Your task to perform on an android device: read, delete, or share a saved page in the chrome app Image 0: 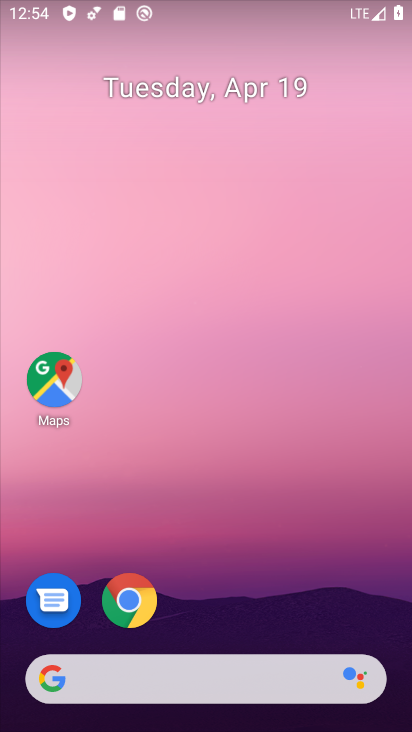
Step 0: drag from (229, 639) to (198, 58)
Your task to perform on an android device: read, delete, or share a saved page in the chrome app Image 1: 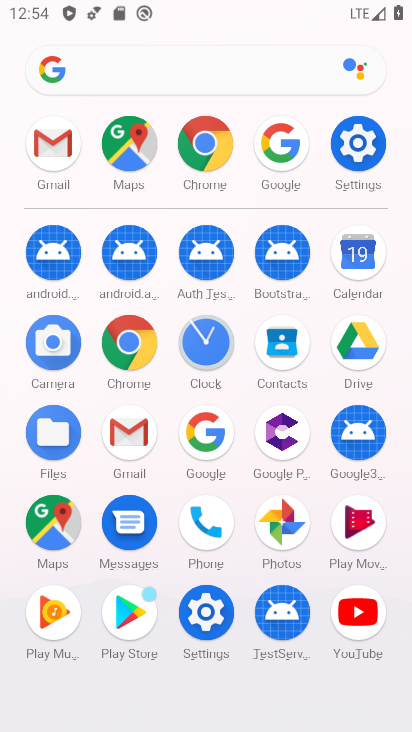
Step 1: click (139, 356)
Your task to perform on an android device: read, delete, or share a saved page in the chrome app Image 2: 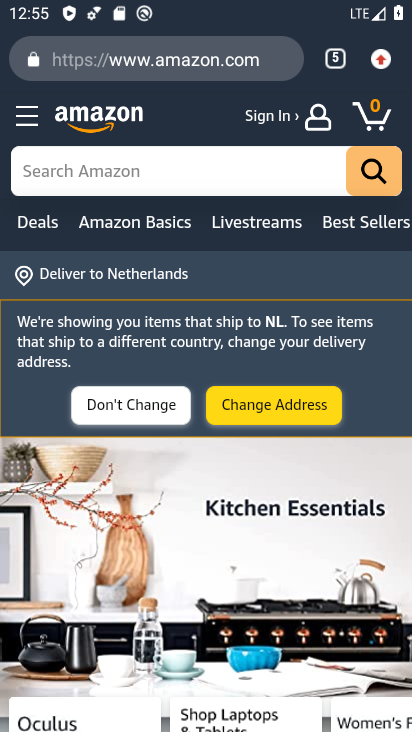
Step 2: click (381, 60)
Your task to perform on an android device: read, delete, or share a saved page in the chrome app Image 3: 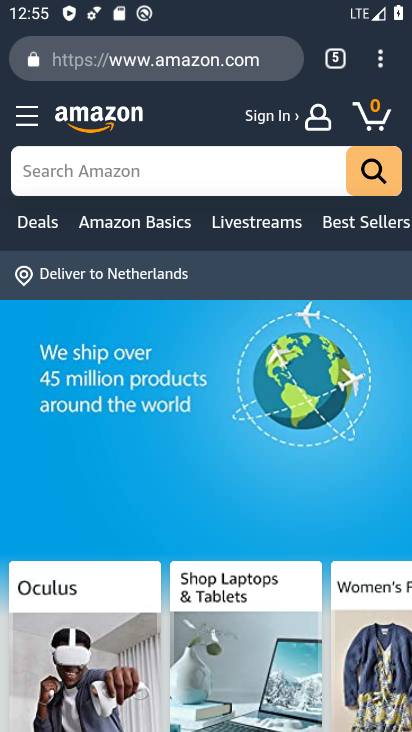
Step 3: click (378, 58)
Your task to perform on an android device: read, delete, or share a saved page in the chrome app Image 4: 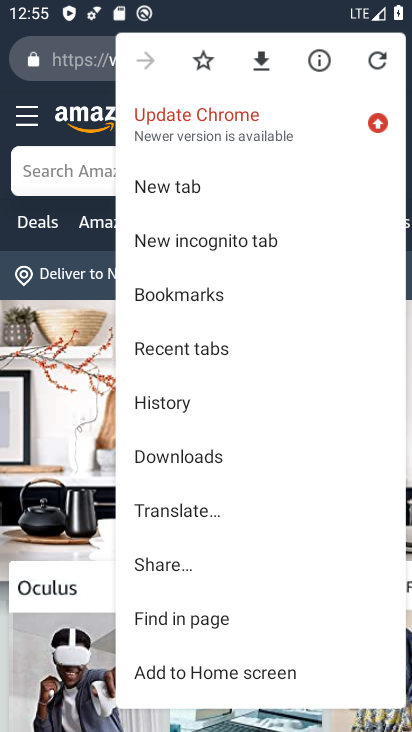
Step 4: click (183, 457)
Your task to perform on an android device: read, delete, or share a saved page in the chrome app Image 5: 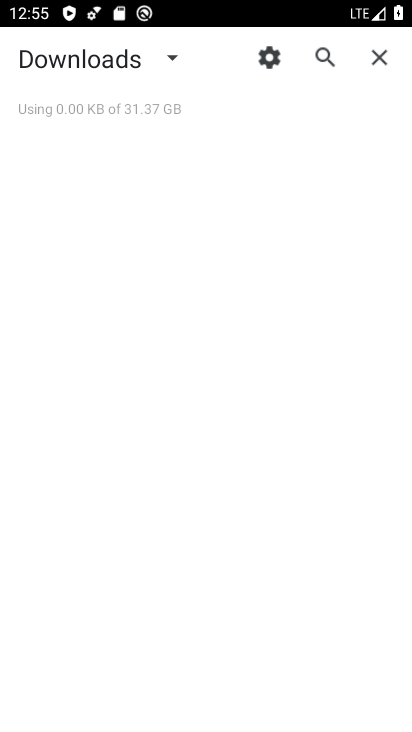
Step 5: task complete